Your task to perform on an android device: turn on airplane mode Image 0: 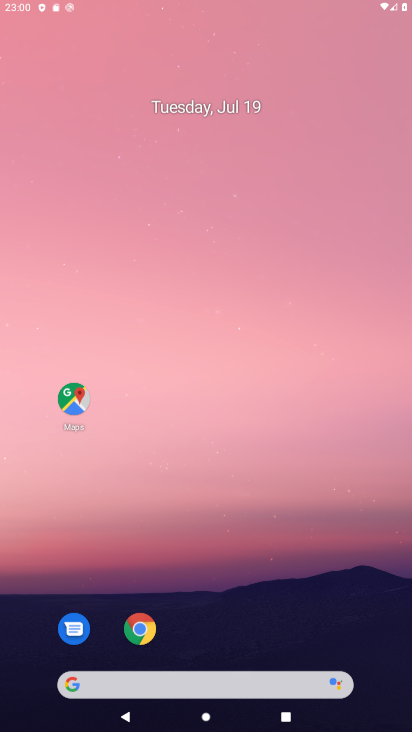
Step 0: press home button
Your task to perform on an android device: turn on airplane mode Image 1: 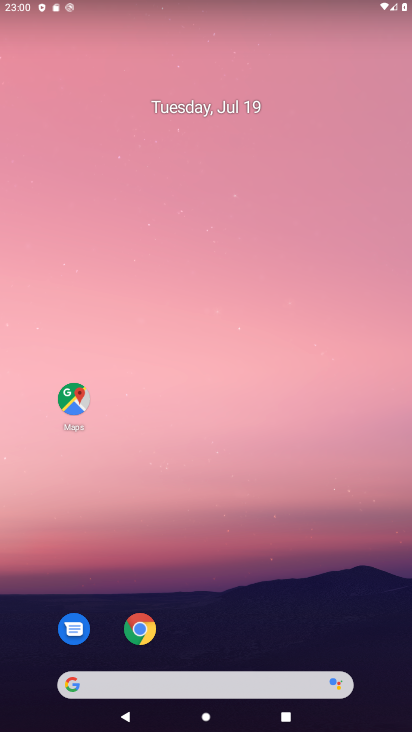
Step 1: drag from (276, 7) to (265, 557)
Your task to perform on an android device: turn on airplane mode Image 2: 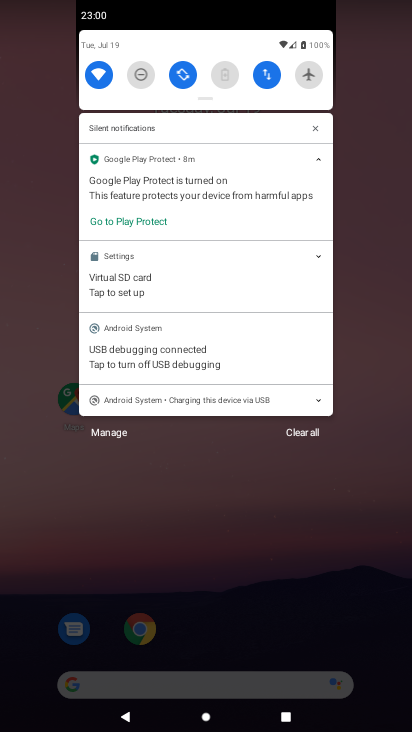
Step 2: click (308, 66)
Your task to perform on an android device: turn on airplane mode Image 3: 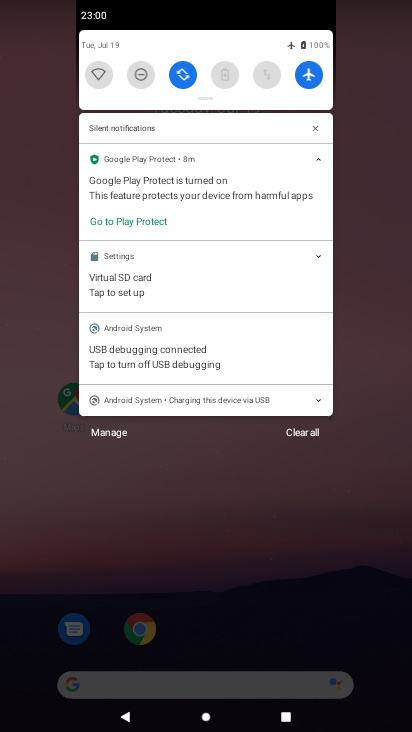
Step 3: task complete